Your task to perform on an android device: create a new album in the google photos Image 0: 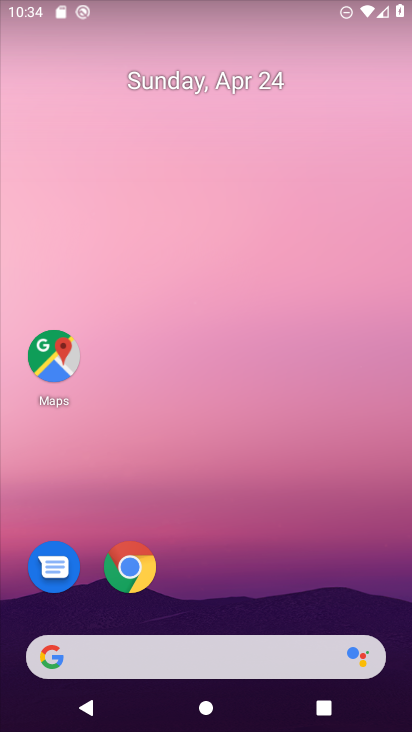
Step 0: drag from (194, 623) to (137, 92)
Your task to perform on an android device: create a new album in the google photos Image 1: 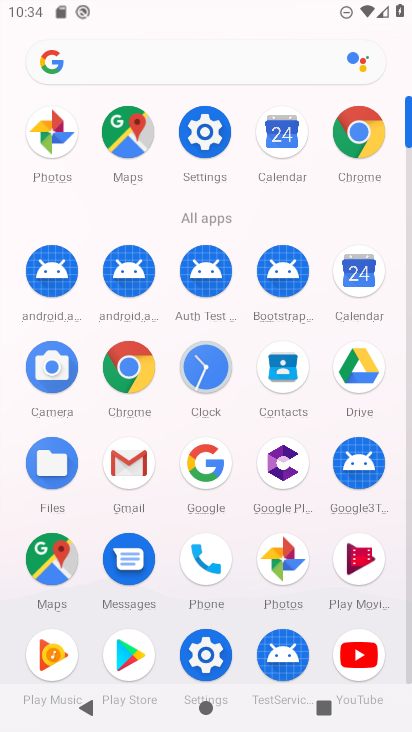
Step 1: click (274, 555)
Your task to perform on an android device: create a new album in the google photos Image 2: 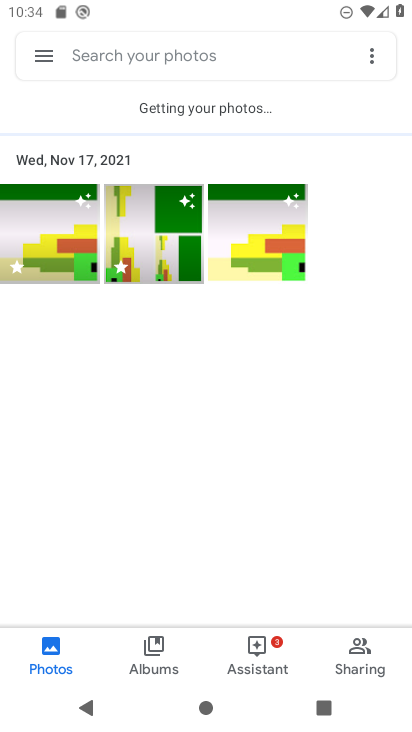
Step 2: click (147, 663)
Your task to perform on an android device: create a new album in the google photos Image 3: 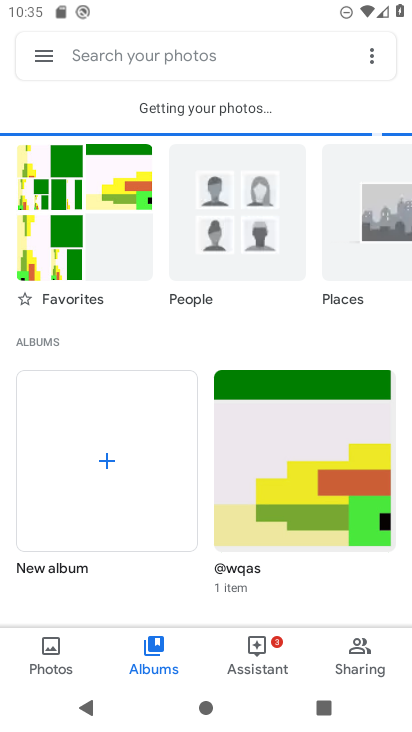
Step 3: click (48, 448)
Your task to perform on an android device: create a new album in the google photos Image 4: 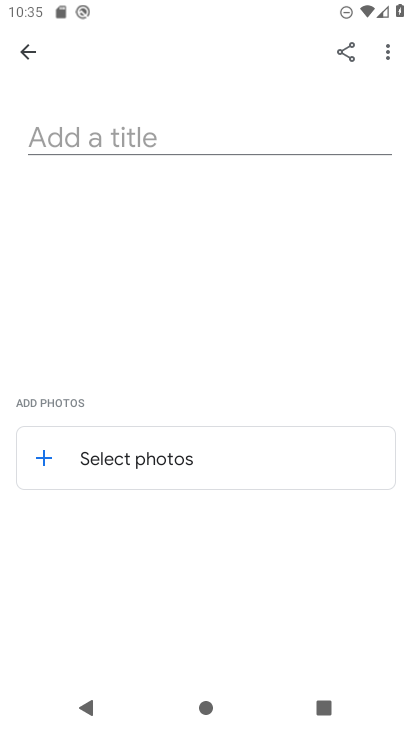
Step 4: click (124, 138)
Your task to perform on an android device: create a new album in the google photos Image 5: 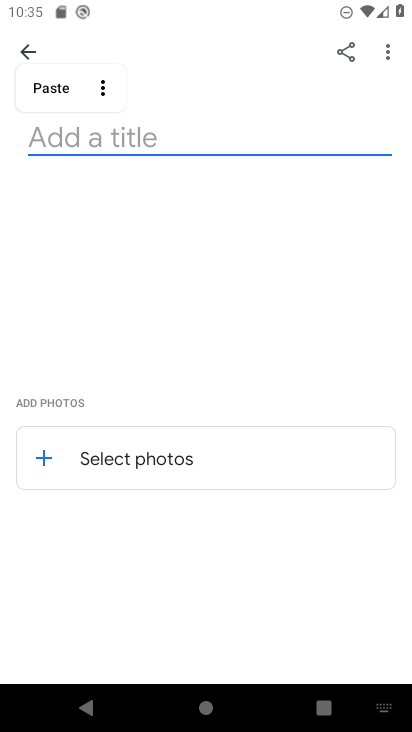
Step 5: type "jj"
Your task to perform on an android device: create a new album in the google photos Image 6: 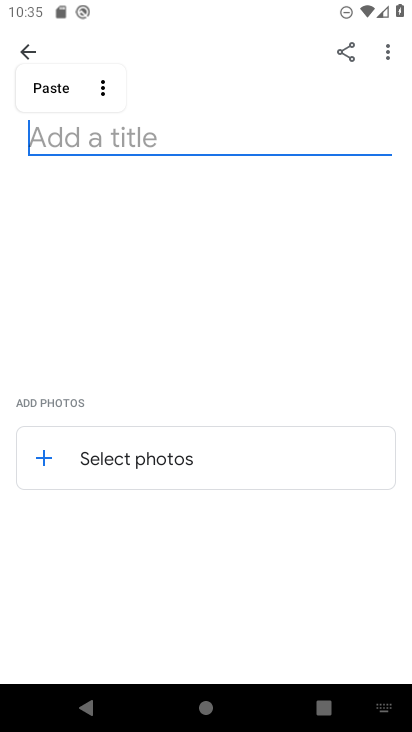
Step 6: click (111, 451)
Your task to perform on an android device: create a new album in the google photos Image 7: 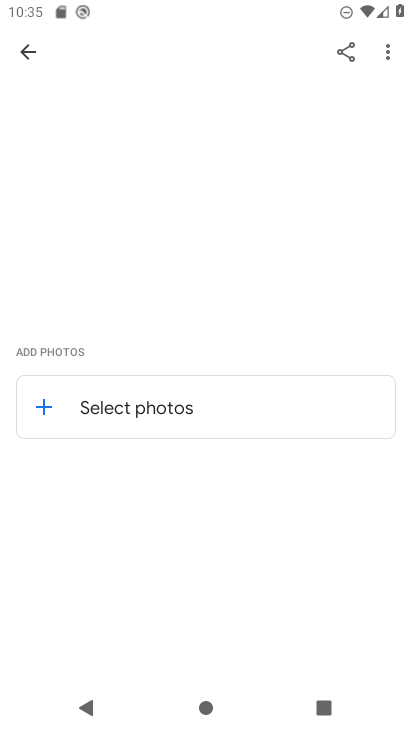
Step 7: click (108, 404)
Your task to perform on an android device: create a new album in the google photos Image 8: 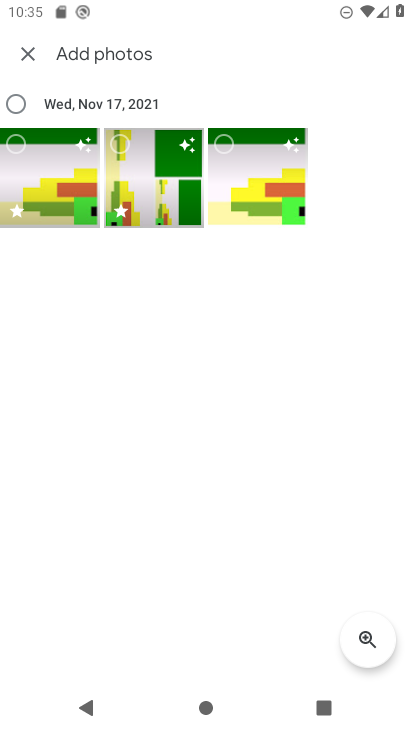
Step 8: click (49, 168)
Your task to perform on an android device: create a new album in the google photos Image 9: 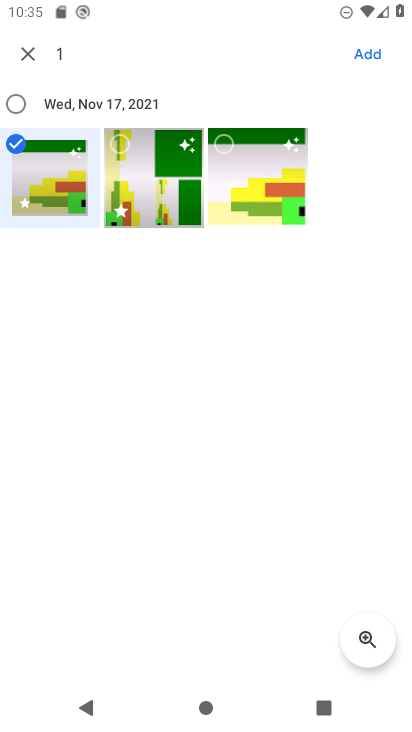
Step 9: click (358, 60)
Your task to perform on an android device: create a new album in the google photos Image 10: 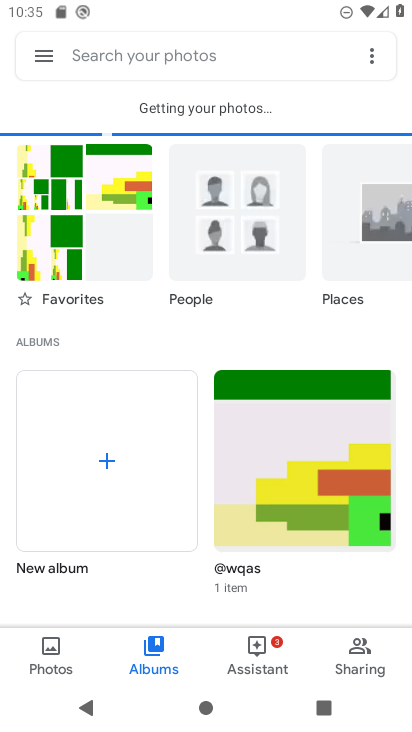
Step 10: task complete